Your task to perform on an android device: toggle location history Image 0: 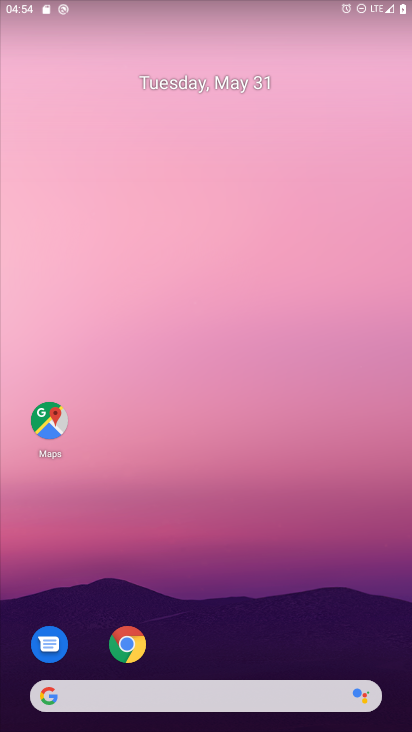
Step 0: drag from (231, 626) to (241, 124)
Your task to perform on an android device: toggle location history Image 1: 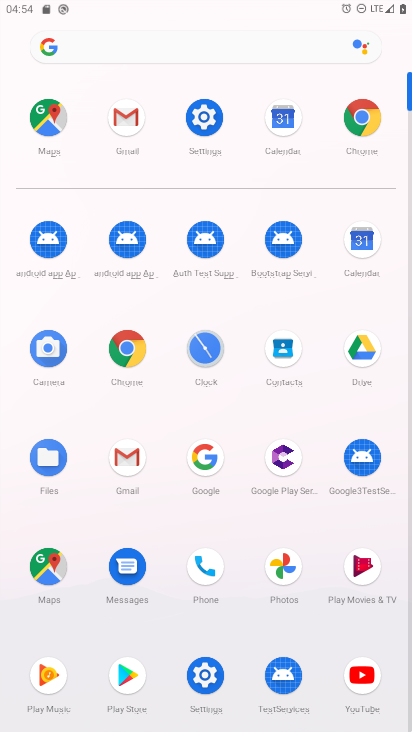
Step 1: click (206, 129)
Your task to perform on an android device: toggle location history Image 2: 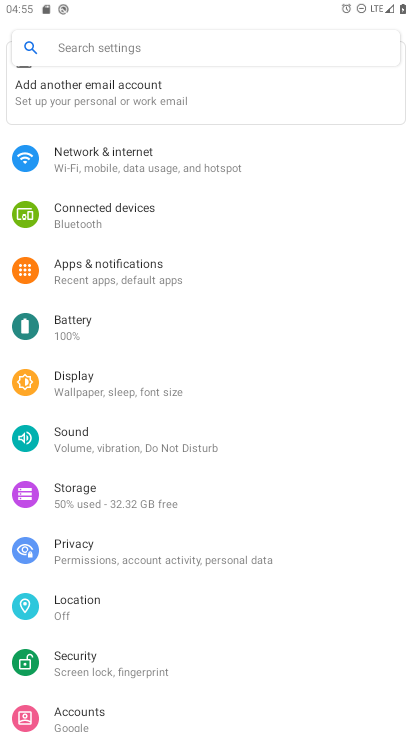
Step 2: click (86, 594)
Your task to perform on an android device: toggle location history Image 3: 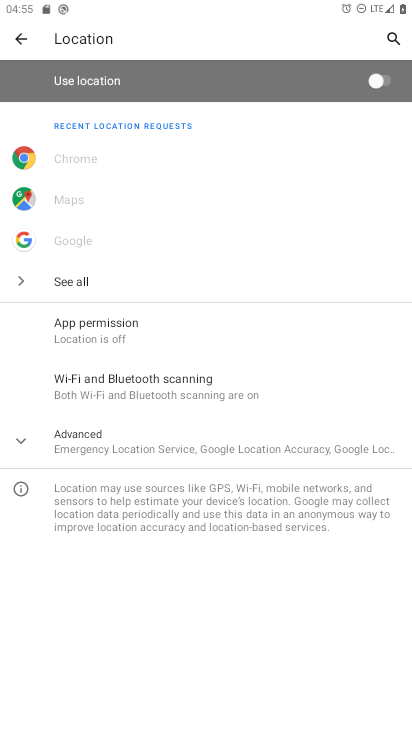
Step 3: click (111, 444)
Your task to perform on an android device: toggle location history Image 4: 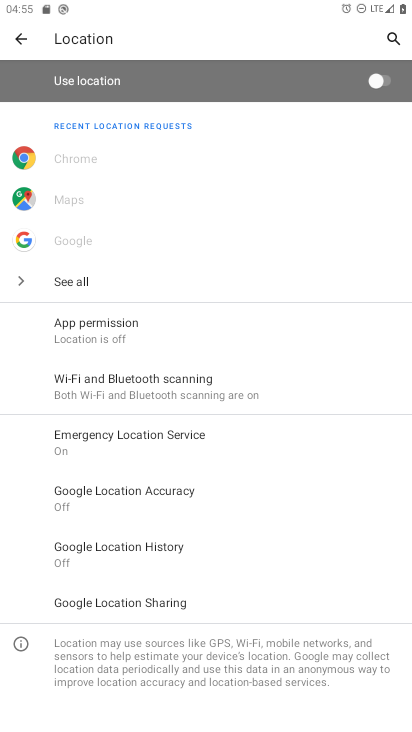
Step 4: click (156, 547)
Your task to perform on an android device: toggle location history Image 5: 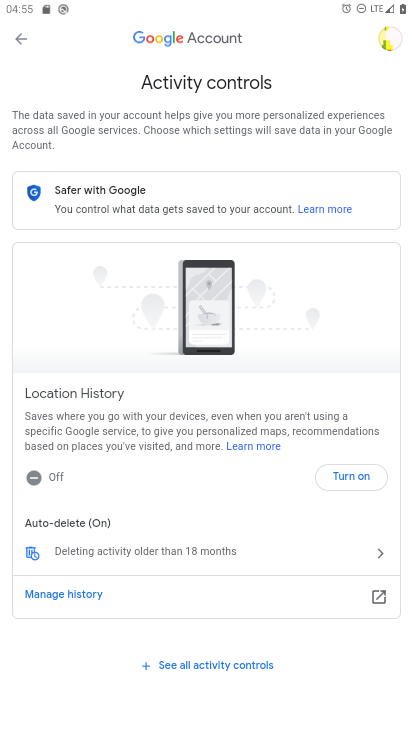
Step 5: click (362, 475)
Your task to perform on an android device: toggle location history Image 6: 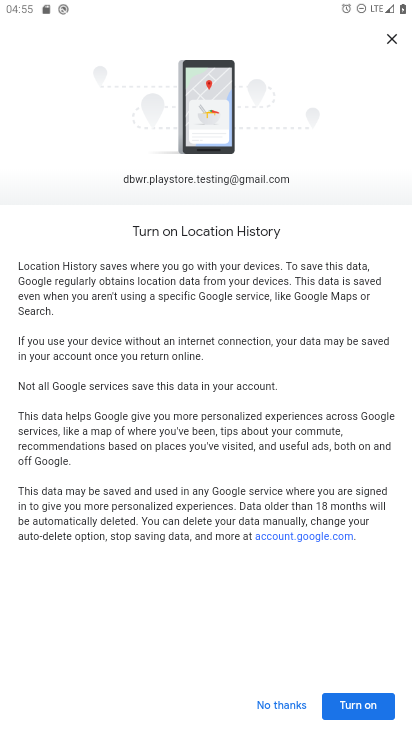
Step 6: click (369, 711)
Your task to perform on an android device: toggle location history Image 7: 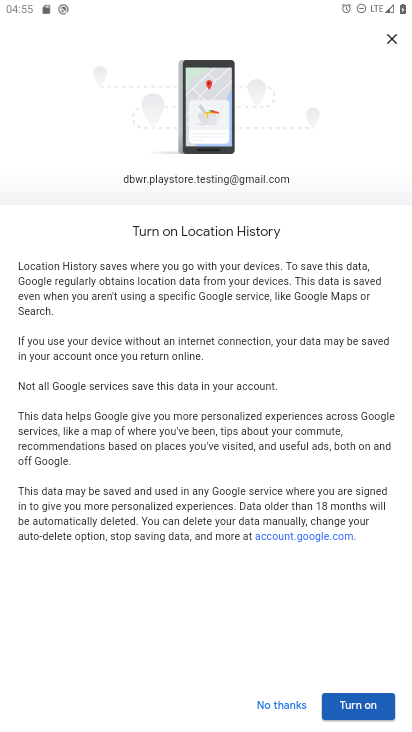
Step 7: click (349, 695)
Your task to perform on an android device: toggle location history Image 8: 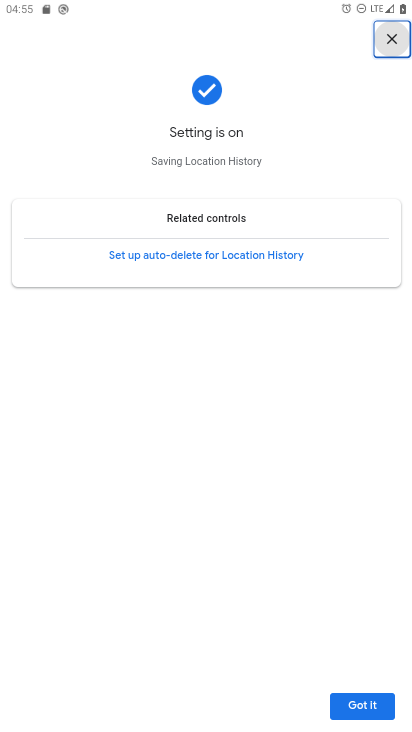
Step 8: task complete